Your task to perform on an android device: stop showing notifications on the lock screen Image 0: 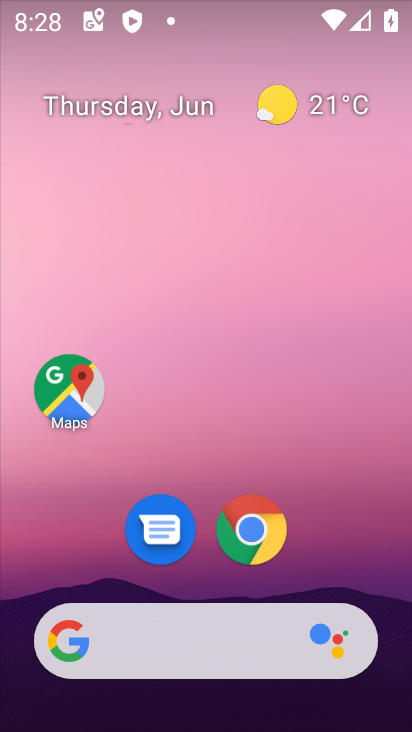
Step 0: drag from (327, 482) to (156, 9)
Your task to perform on an android device: stop showing notifications on the lock screen Image 1: 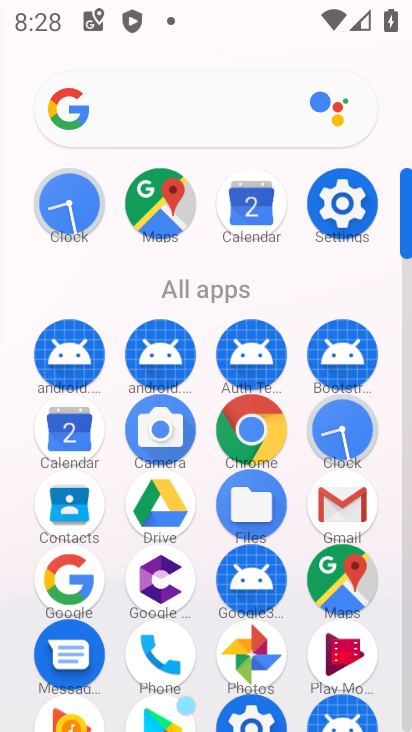
Step 1: click (342, 199)
Your task to perform on an android device: stop showing notifications on the lock screen Image 2: 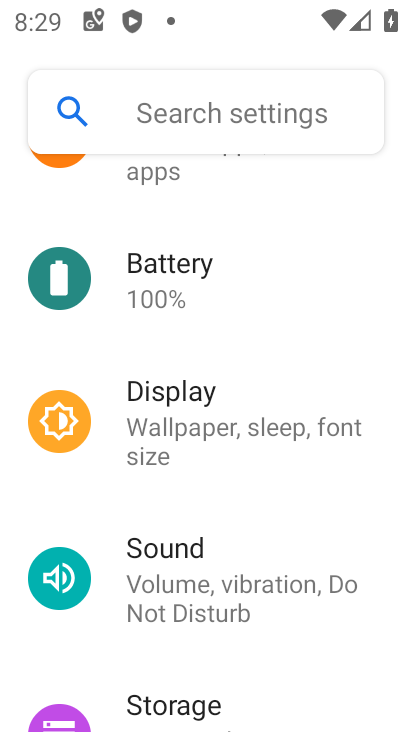
Step 2: drag from (219, 231) to (167, 606)
Your task to perform on an android device: stop showing notifications on the lock screen Image 3: 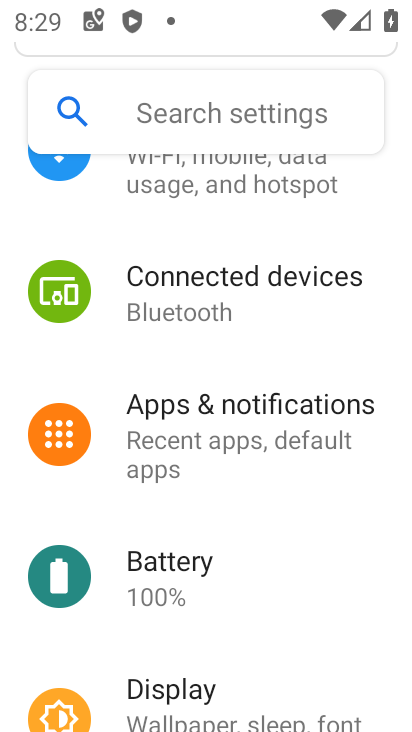
Step 3: click (235, 402)
Your task to perform on an android device: stop showing notifications on the lock screen Image 4: 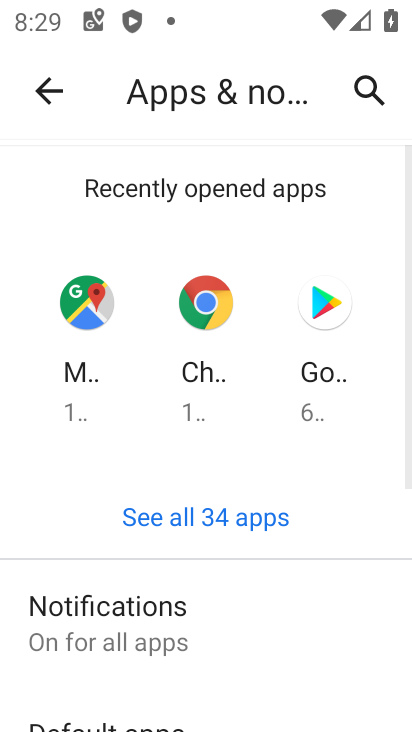
Step 4: drag from (236, 647) to (197, 392)
Your task to perform on an android device: stop showing notifications on the lock screen Image 5: 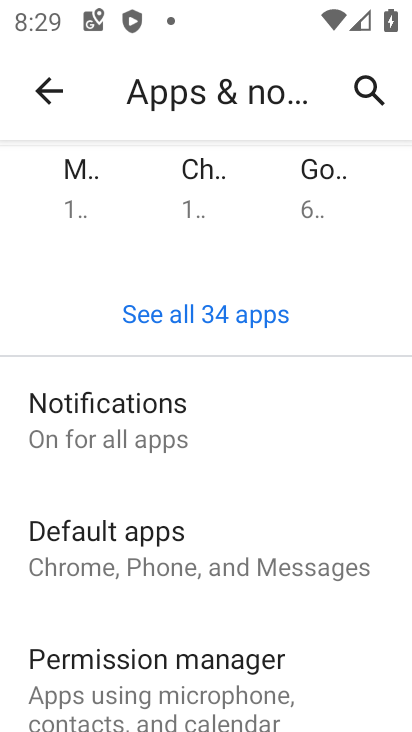
Step 5: click (113, 398)
Your task to perform on an android device: stop showing notifications on the lock screen Image 6: 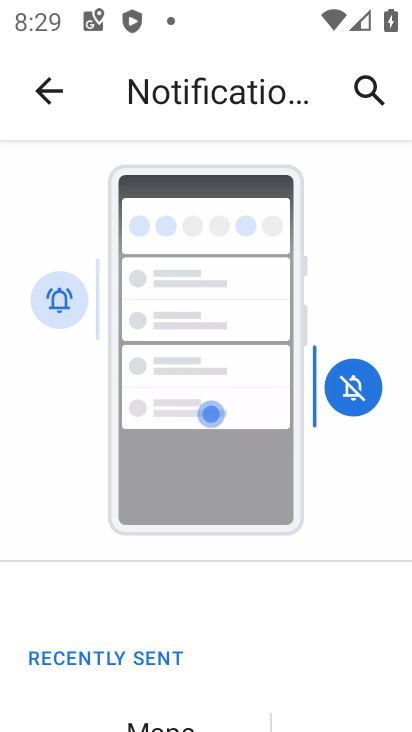
Step 6: click (274, 252)
Your task to perform on an android device: stop showing notifications on the lock screen Image 7: 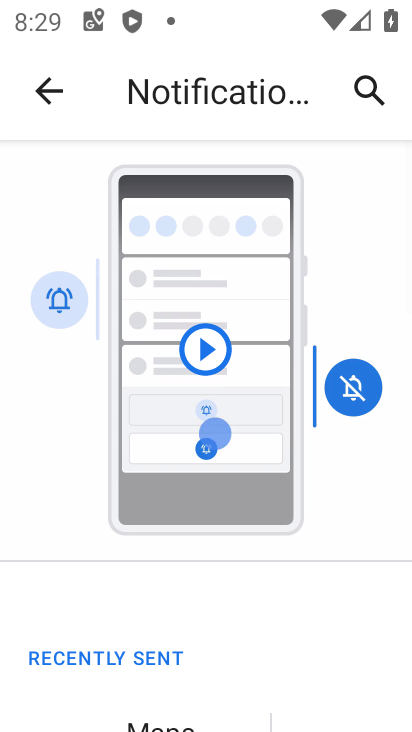
Step 7: drag from (306, 632) to (306, 327)
Your task to perform on an android device: stop showing notifications on the lock screen Image 8: 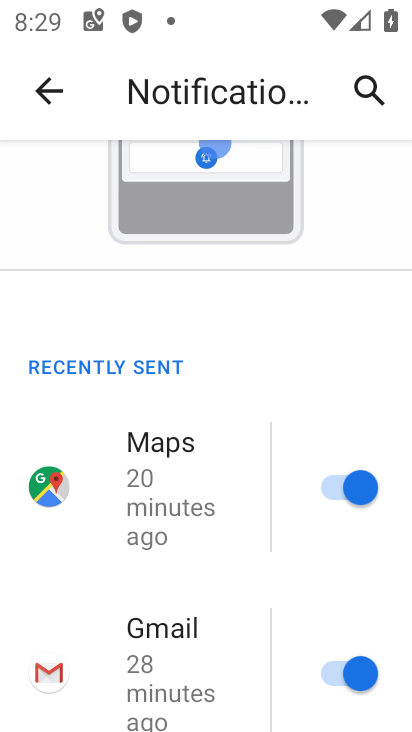
Step 8: drag from (295, 634) to (282, 289)
Your task to perform on an android device: stop showing notifications on the lock screen Image 9: 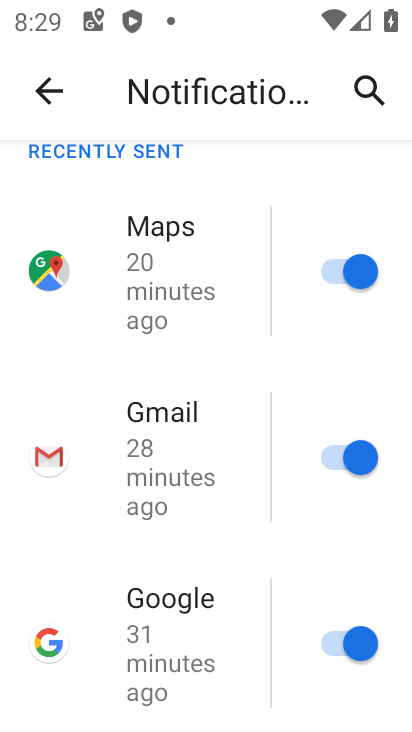
Step 9: drag from (285, 576) to (290, 267)
Your task to perform on an android device: stop showing notifications on the lock screen Image 10: 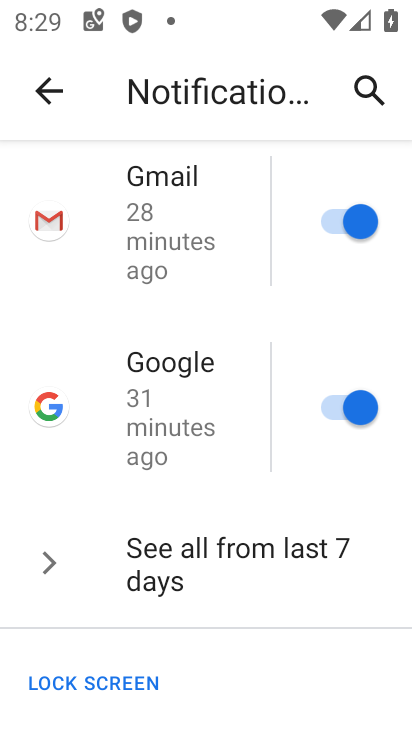
Step 10: drag from (222, 632) to (196, 364)
Your task to perform on an android device: stop showing notifications on the lock screen Image 11: 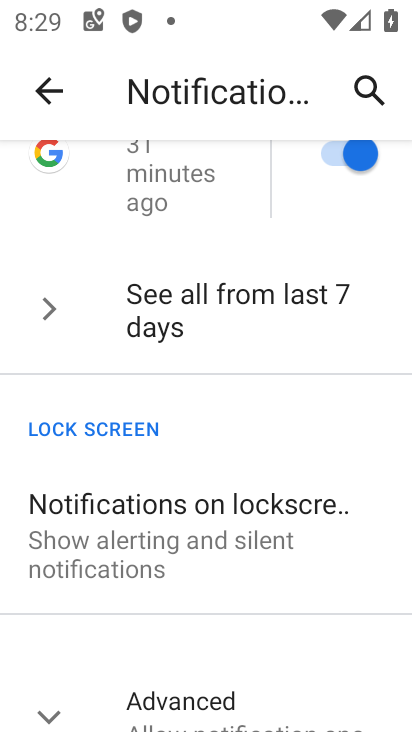
Step 11: click (190, 499)
Your task to perform on an android device: stop showing notifications on the lock screen Image 12: 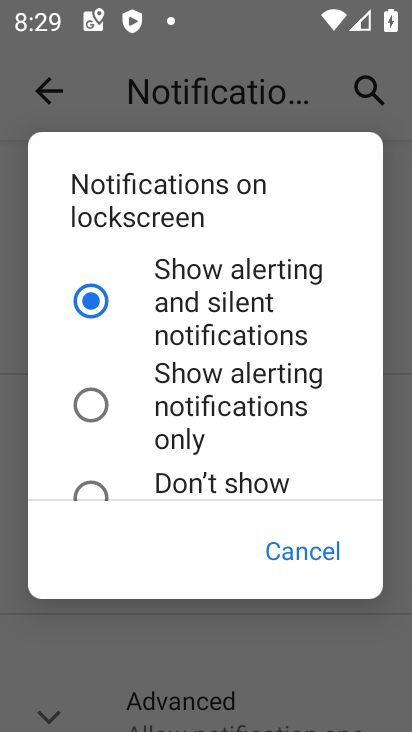
Step 12: click (83, 495)
Your task to perform on an android device: stop showing notifications on the lock screen Image 13: 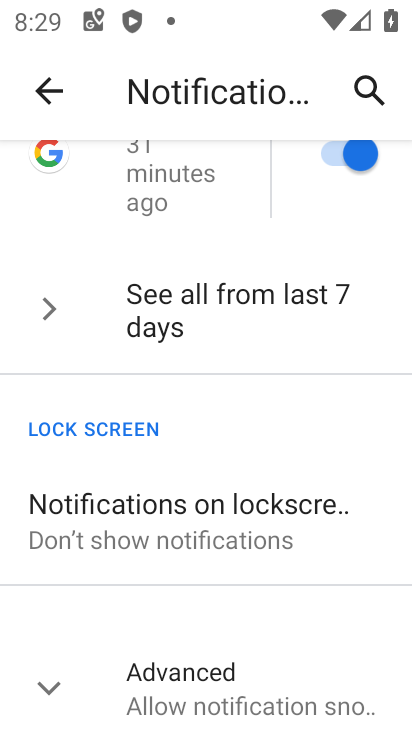
Step 13: task complete